Your task to perform on an android device: star an email in the gmail app Image 0: 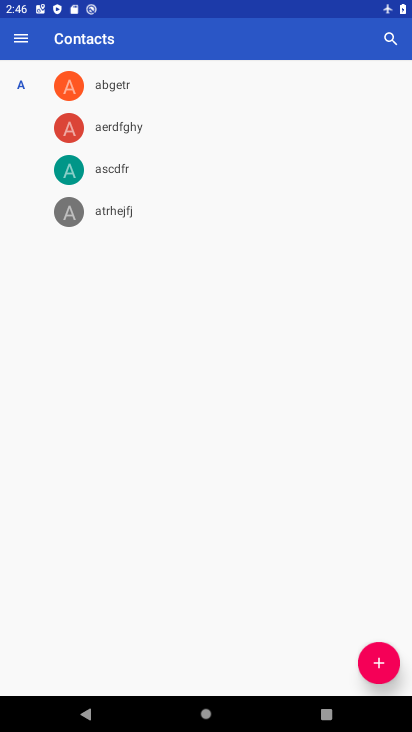
Step 0: press home button
Your task to perform on an android device: star an email in the gmail app Image 1: 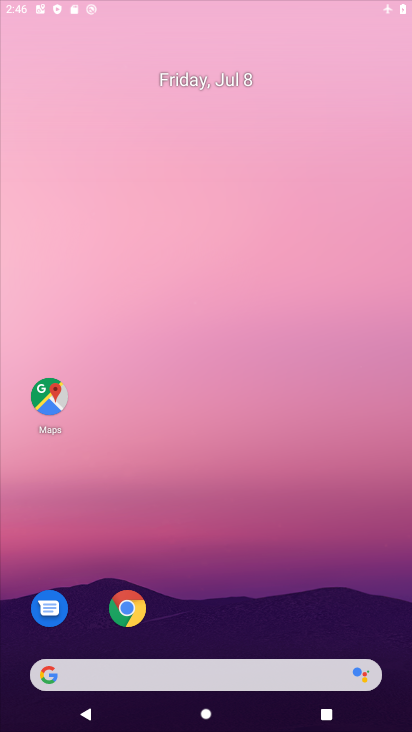
Step 1: drag from (300, 671) to (266, 100)
Your task to perform on an android device: star an email in the gmail app Image 2: 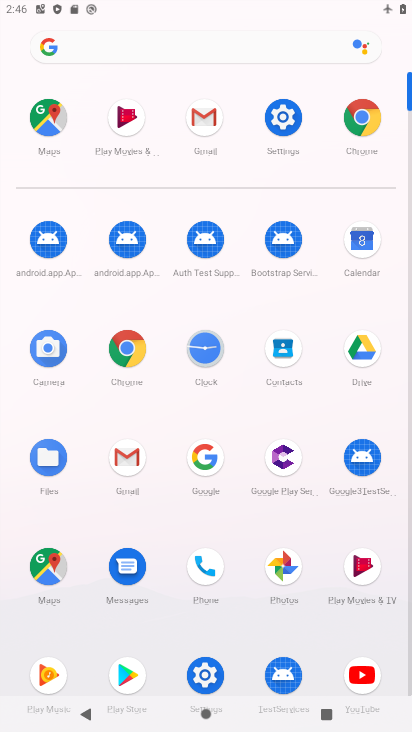
Step 2: click (124, 451)
Your task to perform on an android device: star an email in the gmail app Image 3: 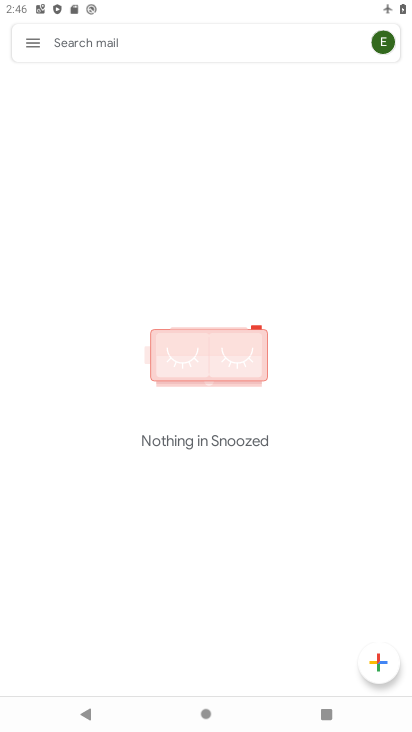
Step 3: click (37, 39)
Your task to perform on an android device: star an email in the gmail app Image 4: 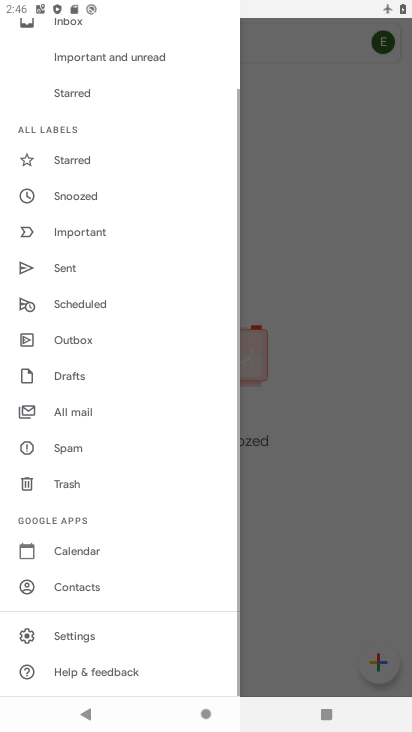
Step 4: click (74, 156)
Your task to perform on an android device: star an email in the gmail app Image 5: 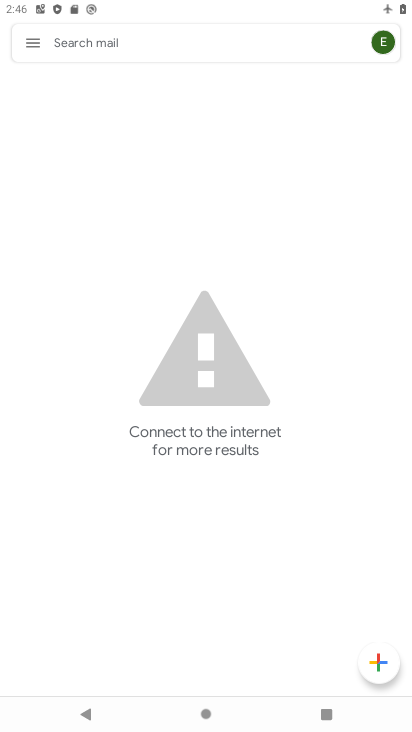
Step 5: task complete